Your task to perform on an android device: delete a single message in the gmail app Image 0: 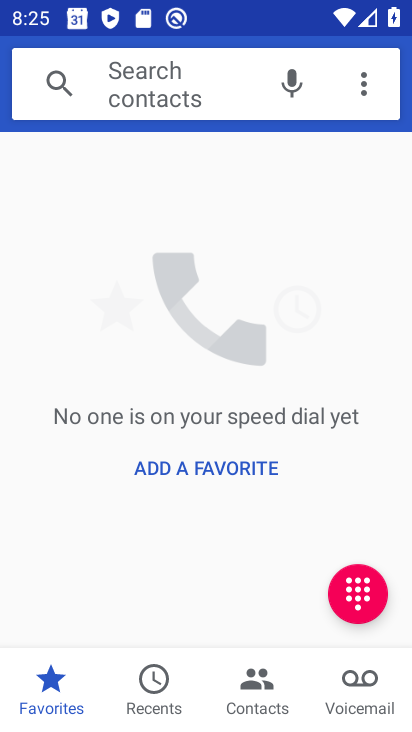
Step 0: press back button
Your task to perform on an android device: delete a single message in the gmail app Image 1: 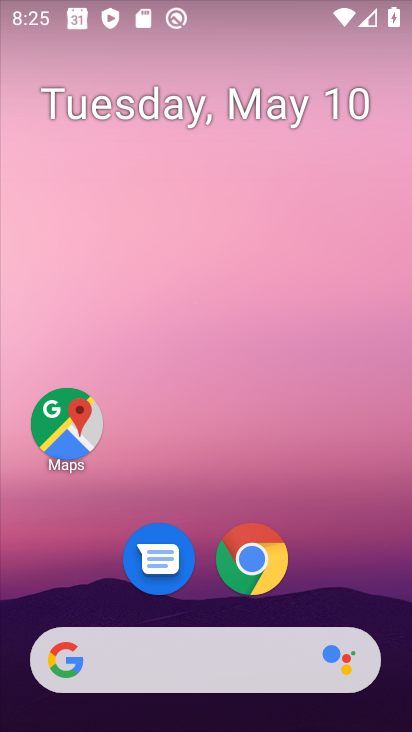
Step 1: drag from (319, 590) to (248, 38)
Your task to perform on an android device: delete a single message in the gmail app Image 2: 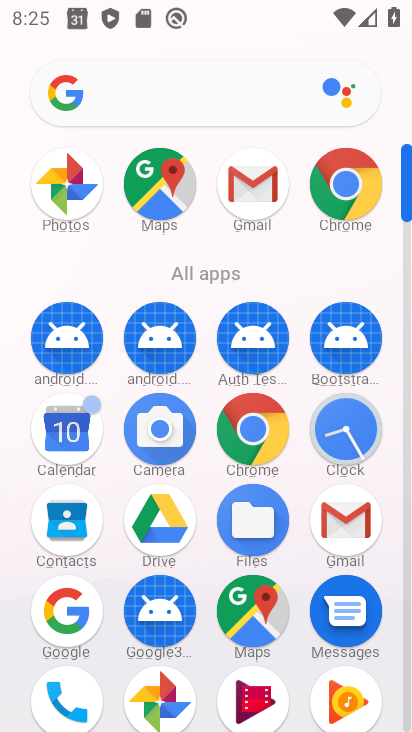
Step 2: click (344, 512)
Your task to perform on an android device: delete a single message in the gmail app Image 3: 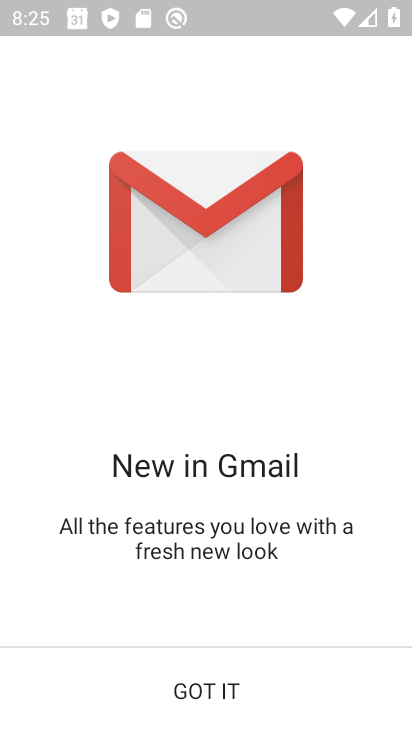
Step 3: click (181, 663)
Your task to perform on an android device: delete a single message in the gmail app Image 4: 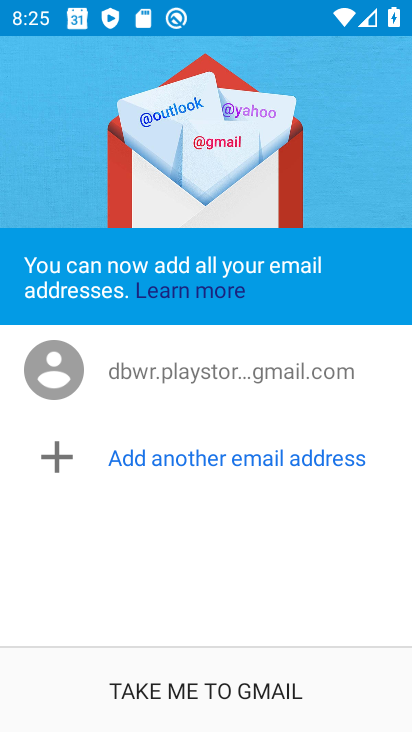
Step 4: click (183, 662)
Your task to perform on an android device: delete a single message in the gmail app Image 5: 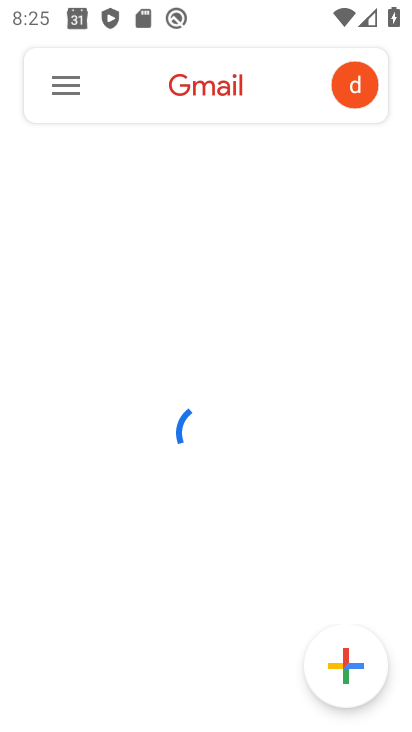
Step 5: click (61, 76)
Your task to perform on an android device: delete a single message in the gmail app Image 6: 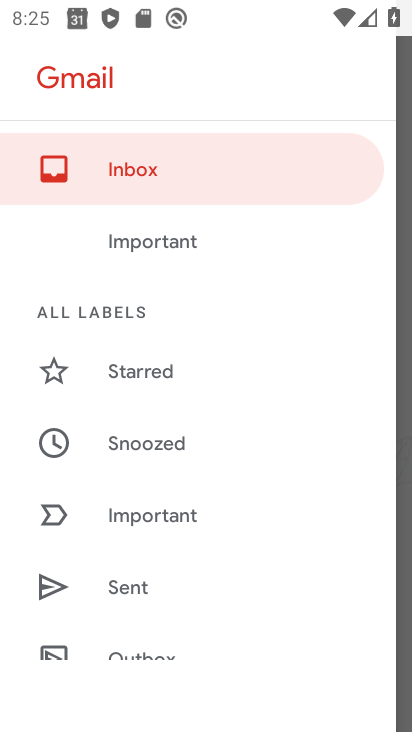
Step 6: drag from (230, 567) to (232, 197)
Your task to perform on an android device: delete a single message in the gmail app Image 7: 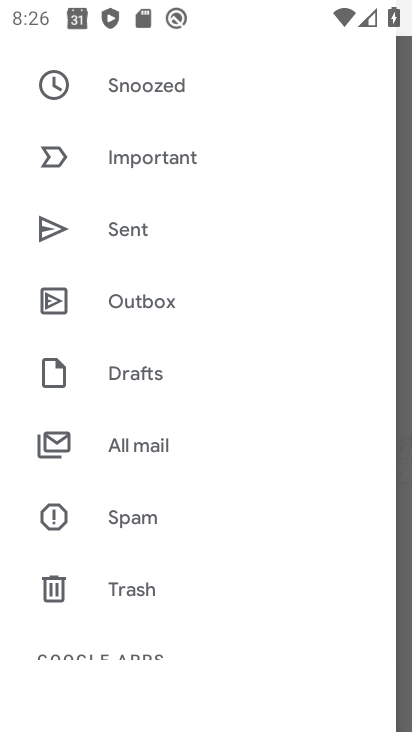
Step 7: click (143, 430)
Your task to perform on an android device: delete a single message in the gmail app Image 8: 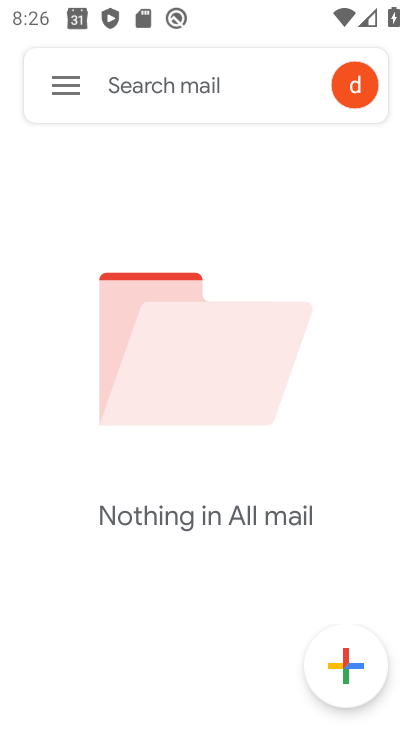
Step 8: click (67, 70)
Your task to perform on an android device: delete a single message in the gmail app Image 9: 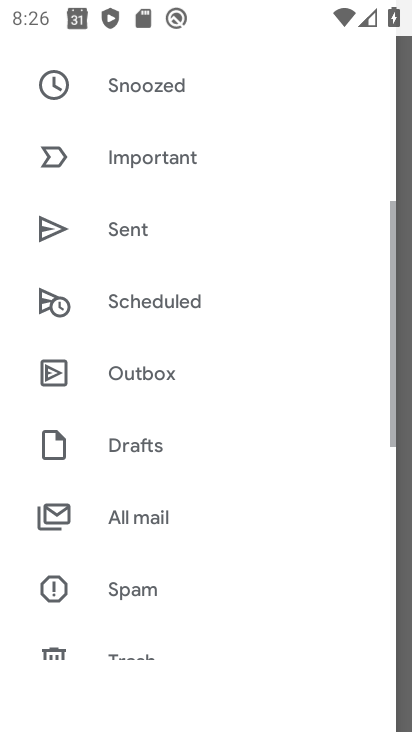
Step 9: drag from (243, 558) to (243, 157)
Your task to perform on an android device: delete a single message in the gmail app Image 10: 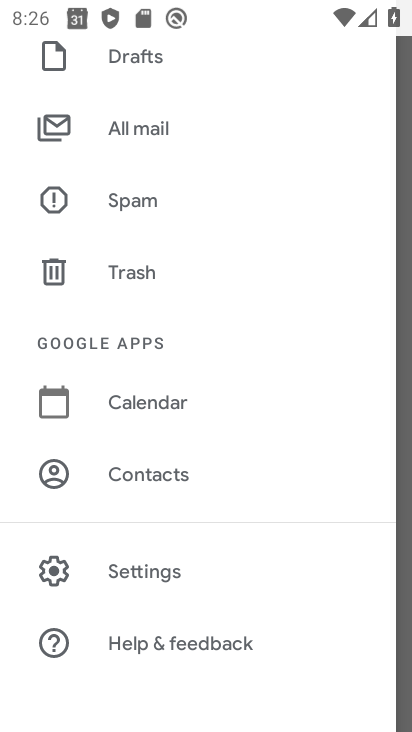
Step 10: click (176, 259)
Your task to perform on an android device: delete a single message in the gmail app Image 11: 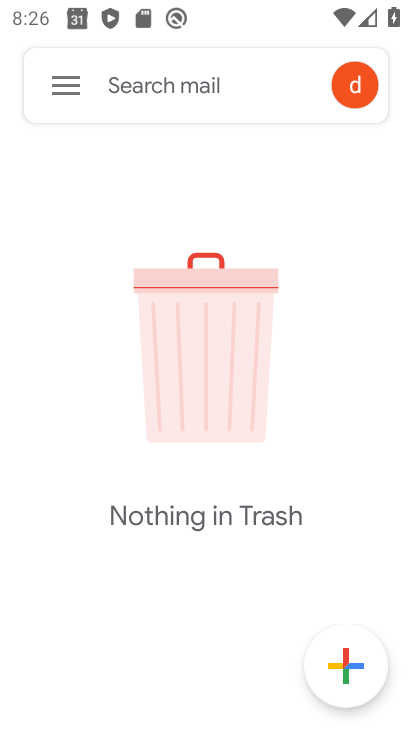
Step 11: click (72, 72)
Your task to perform on an android device: delete a single message in the gmail app Image 12: 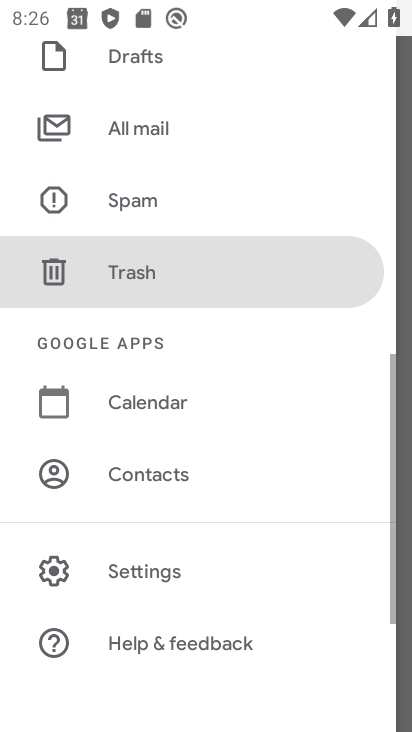
Step 12: drag from (225, 106) to (230, 533)
Your task to perform on an android device: delete a single message in the gmail app Image 13: 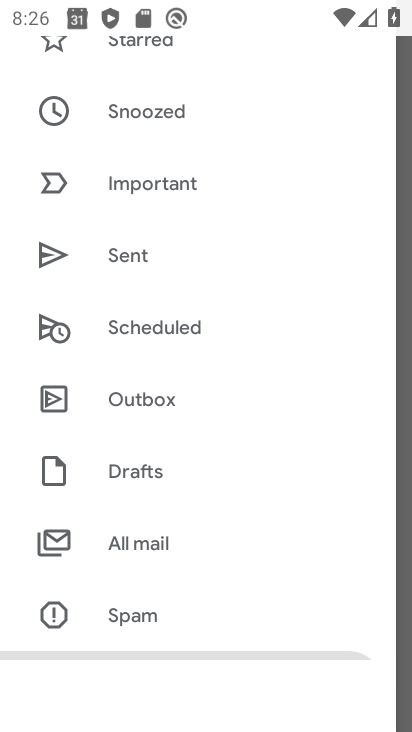
Step 13: drag from (193, 117) to (191, 501)
Your task to perform on an android device: delete a single message in the gmail app Image 14: 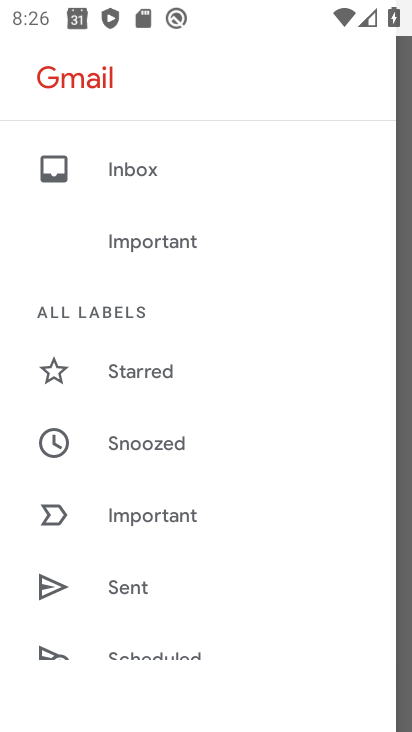
Step 14: click (151, 160)
Your task to perform on an android device: delete a single message in the gmail app Image 15: 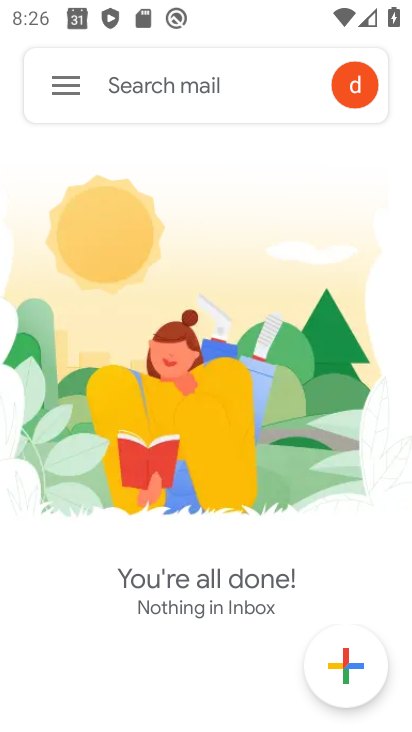
Step 15: click (49, 84)
Your task to perform on an android device: delete a single message in the gmail app Image 16: 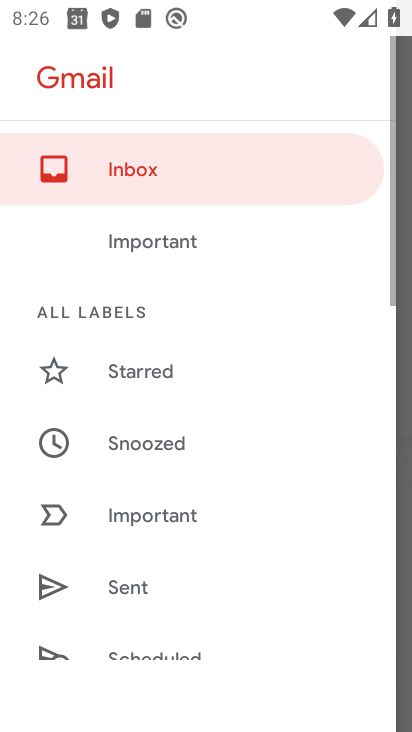
Step 16: task complete